Your task to perform on an android device: Open Google Maps and go to "Timeline" Image 0: 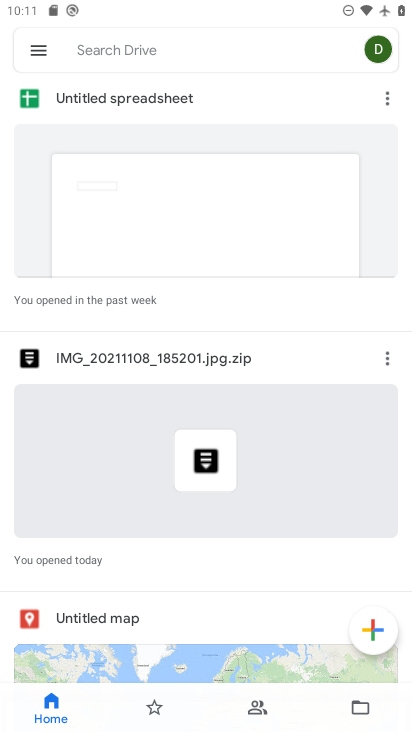
Step 0: press home button
Your task to perform on an android device: Open Google Maps and go to "Timeline" Image 1: 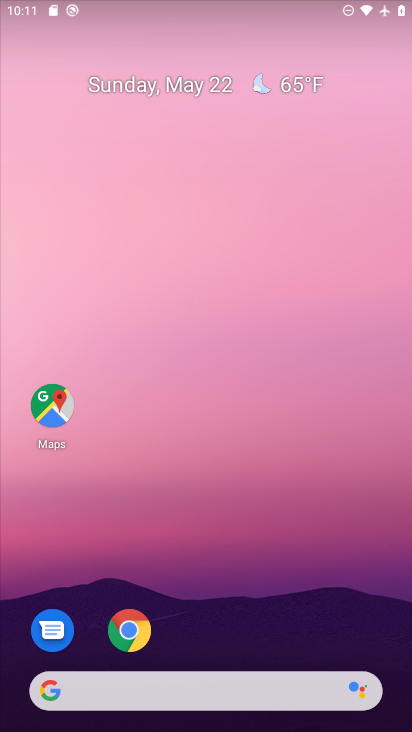
Step 1: click (43, 387)
Your task to perform on an android device: Open Google Maps and go to "Timeline" Image 2: 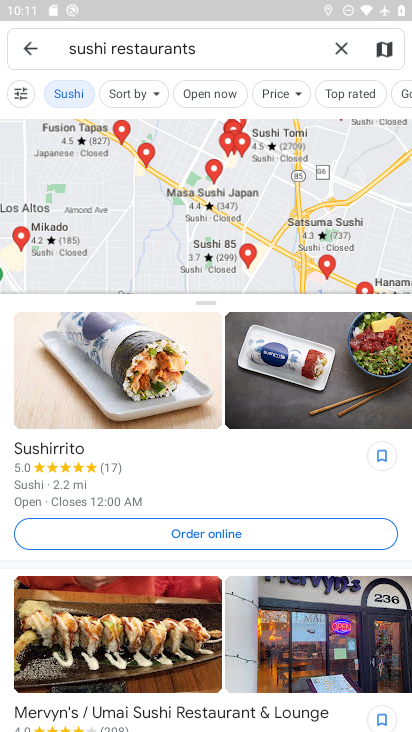
Step 2: click (39, 40)
Your task to perform on an android device: Open Google Maps and go to "Timeline" Image 3: 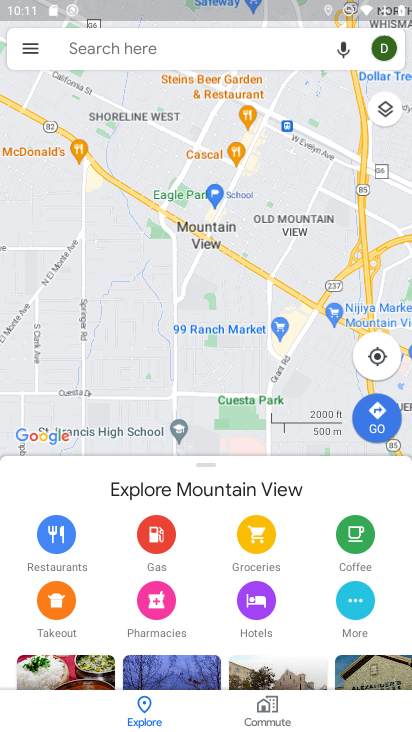
Step 3: click (33, 49)
Your task to perform on an android device: Open Google Maps and go to "Timeline" Image 4: 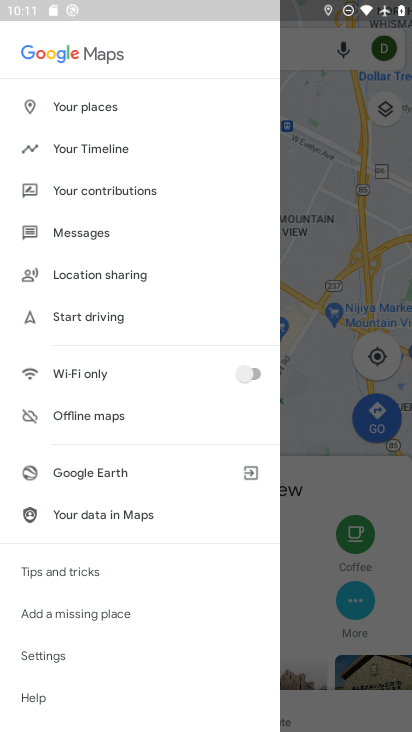
Step 4: click (99, 148)
Your task to perform on an android device: Open Google Maps and go to "Timeline" Image 5: 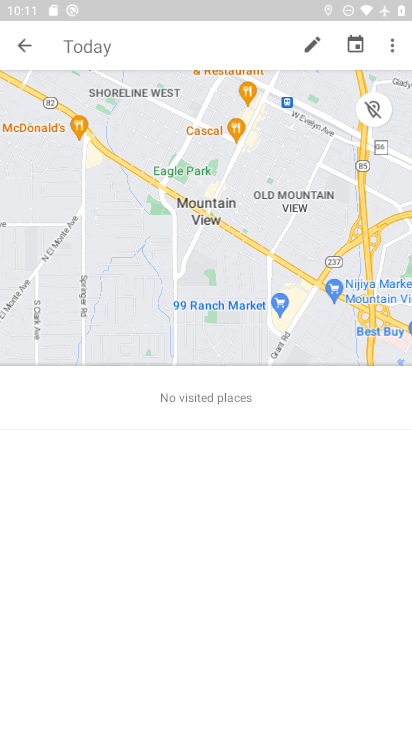
Step 5: task complete